Your task to perform on an android device: install app "Truecaller" Image 0: 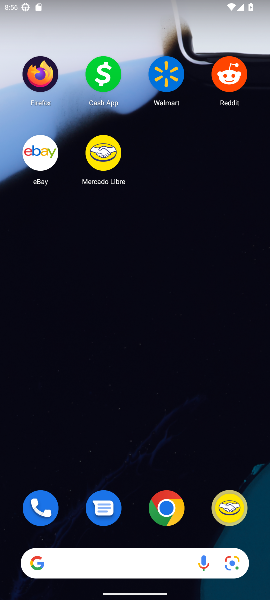
Step 0: drag from (89, 560) to (140, 21)
Your task to perform on an android device: install app "Truecaller" Image 1: 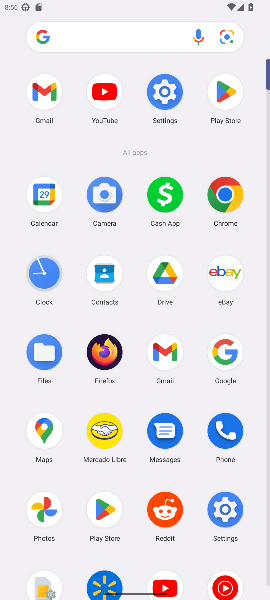
Step 1: click (238, 92)
Your task to perform on an android device: install app "Truecaller" Image 2: 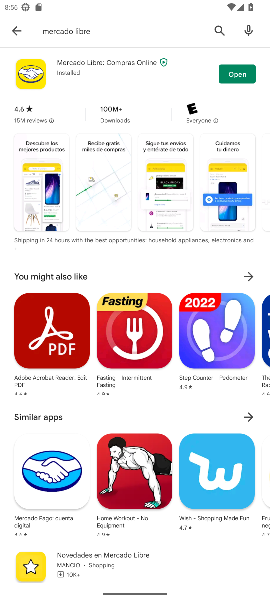
Step 2: click (213, 24)
Your task to perform on an android device: install app "Truecaller" Image 3: 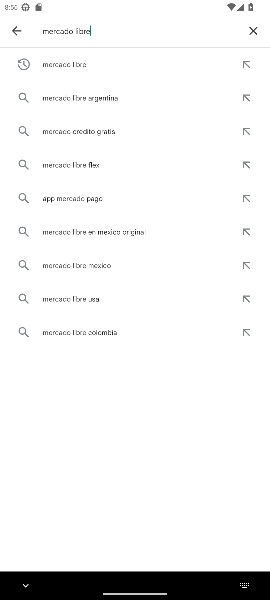
Step 3: click (249, 30)
Your task to perform on an android device: install app "Truecaller" Image 4: 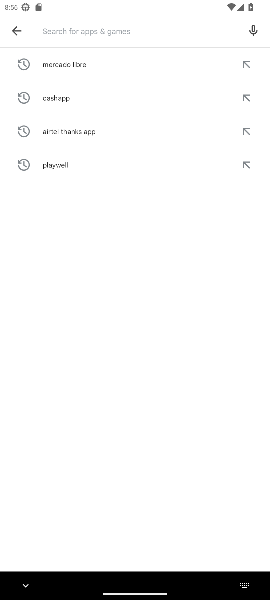
Step 4: type "truecaller"
Your task to perform on an android device: install app "Truecaller" Image 5: 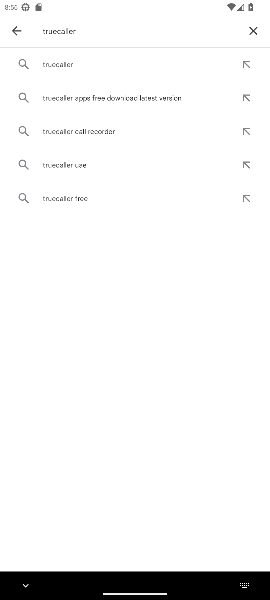
Step 5: click (60, 60)
Your task to perform on an android device: install app "Truecaller" Image 6: 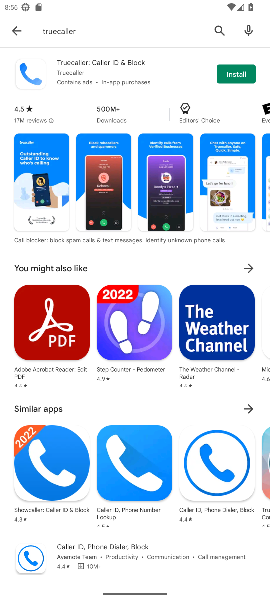
Step 6: click (238, 75)
Your task to perform on an android device: install app "Truecaller" Image 7: 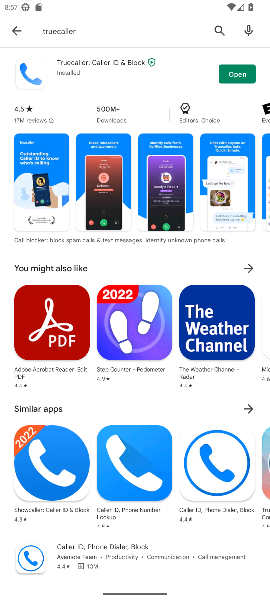
Step 7: task complete